Your task to perform on an android device: Open internet settings Image 0: 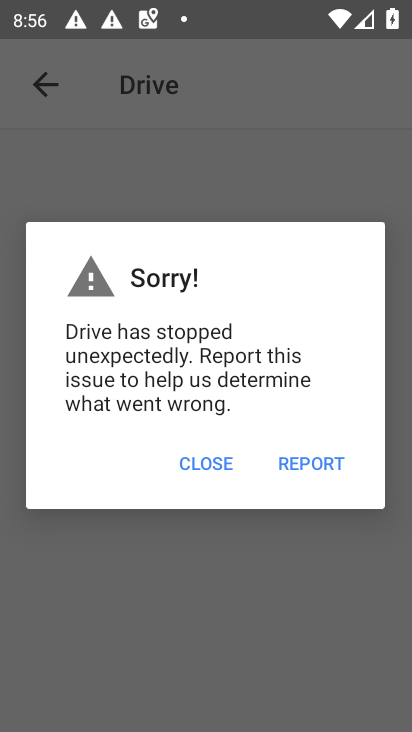
Step 0: press home button
Your task to perform on an android device: Open internet settings Image 1: 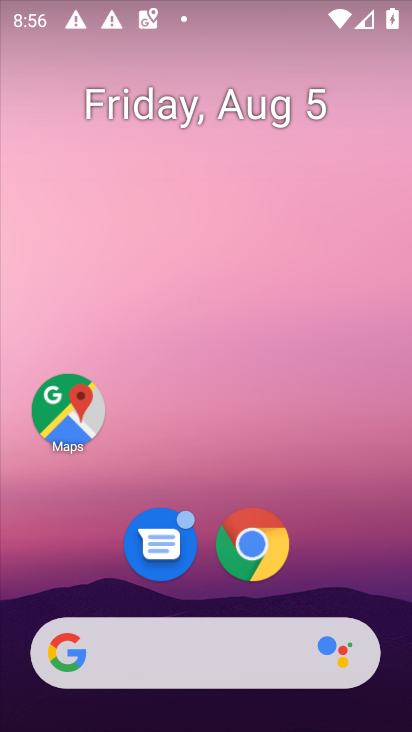
Step 1: drag from (193, 522) to (140, 52)
Your task to perform on an android device: Open internet settings Image 2: 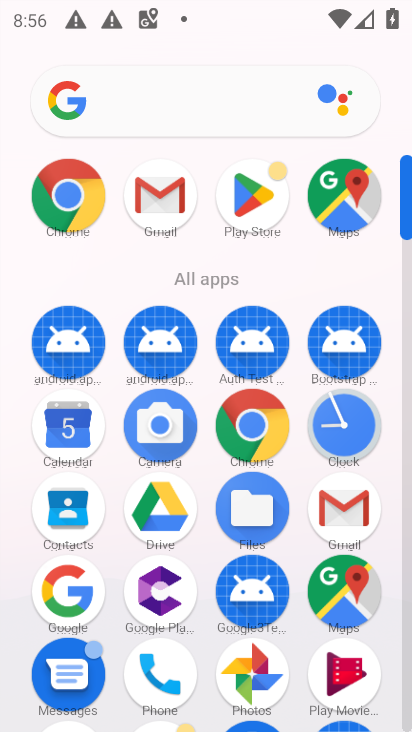
Step 2: drag from (367, 556) to (212, 13)
Your task to perform on an android device: Open internet settings Image 3: 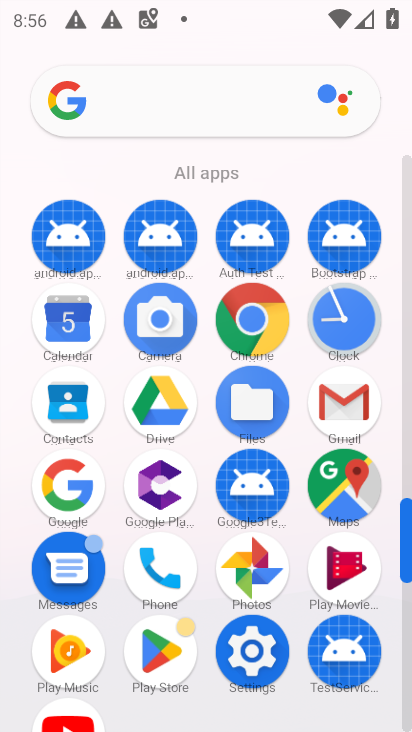
Step 3: click (246, 661)
Your task to perform on an android device: Open internet settings Image 4: 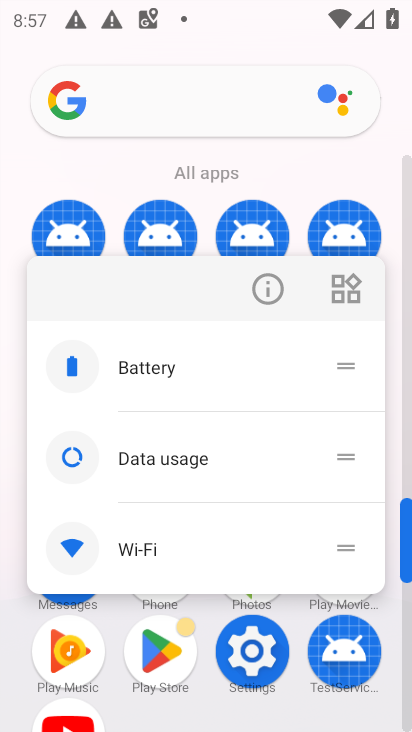
Step 4: click (245, 660)
Your task to perform on an android device: Open internet settings Image 5: 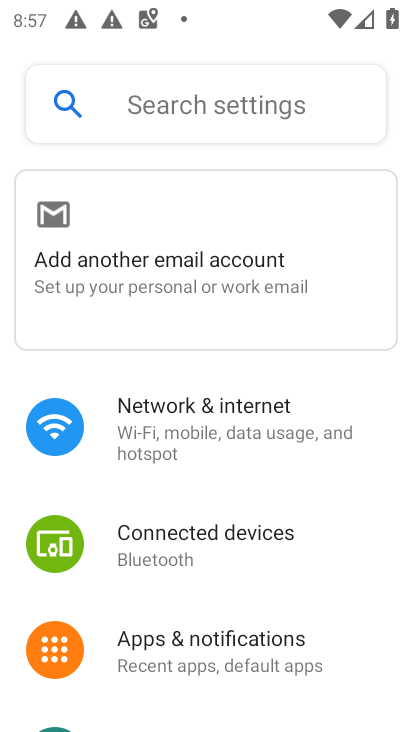
Step 5: click (206, 436)
Your task to perform on an android device: Open internet settings Image 6: 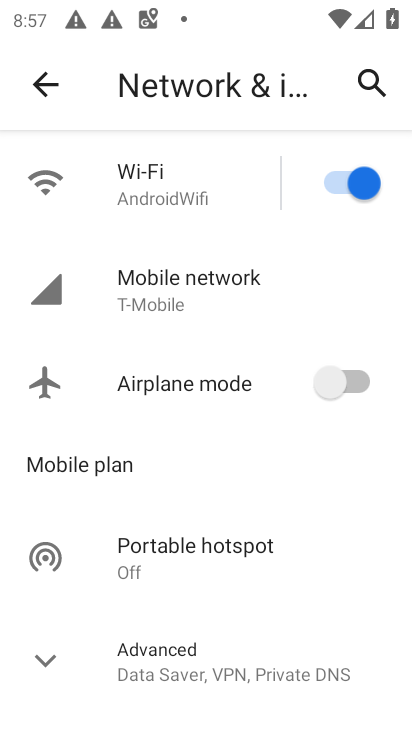
Step 6: task complete